Your task to perform on an android device: Go to Amazon Image 0: 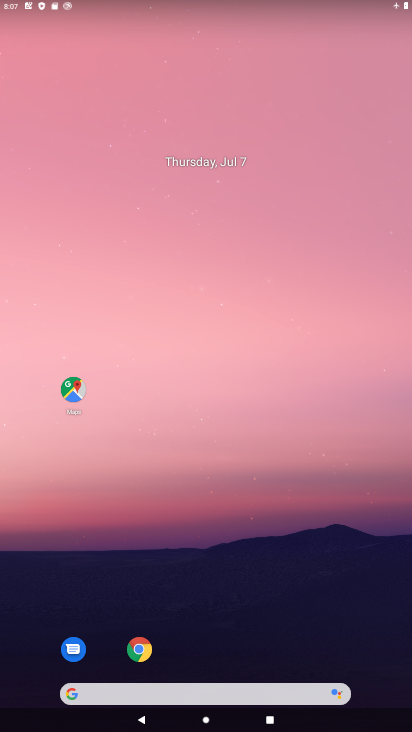
Step 0: drag from (213, 663) to (138, 6)
Your task to perform on an android device: Go to Amazon Image 1: 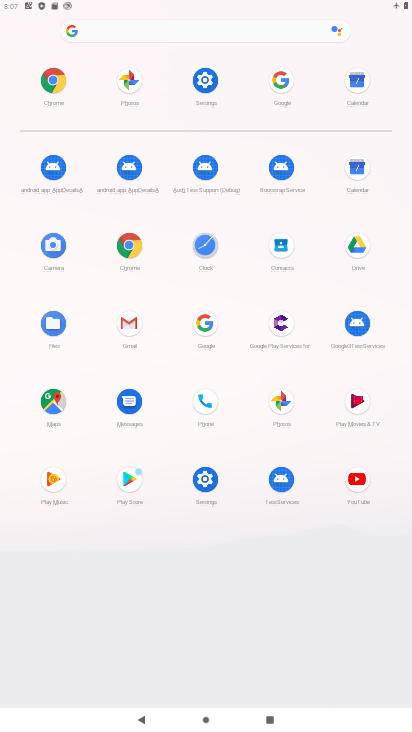
Step 1: click (123, 235)
Your task to perform on an android device: Go to Amazon Image 2: 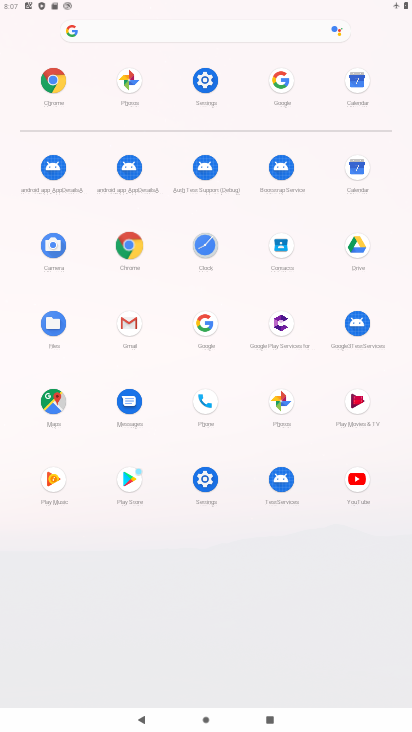
Step 2: click (124, 234)
Your task to perform on an android device: Go to Amazon Image 3: 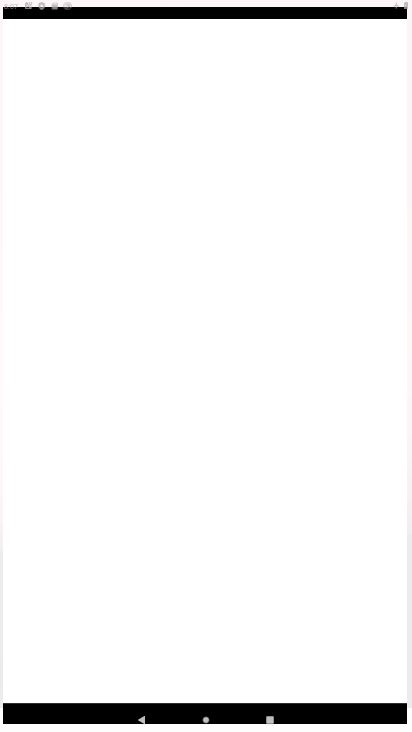
Step 3: click (124, 234)
Your task to perform on an android device: Go to Amazon Image 4: 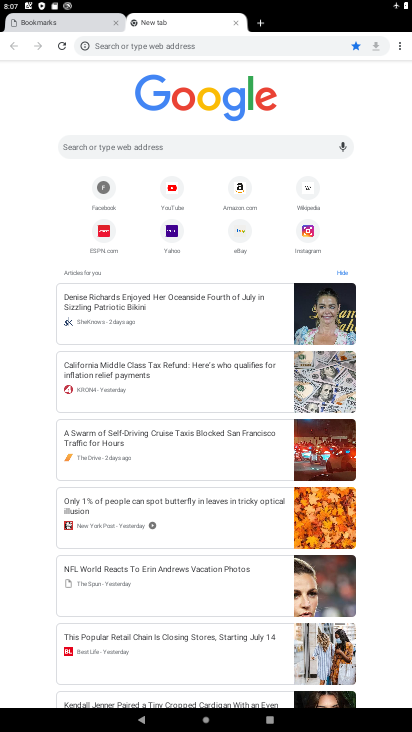
Step 4: click (242, 193)
Your task to perform on an android device: Go to Amazon Image 5: 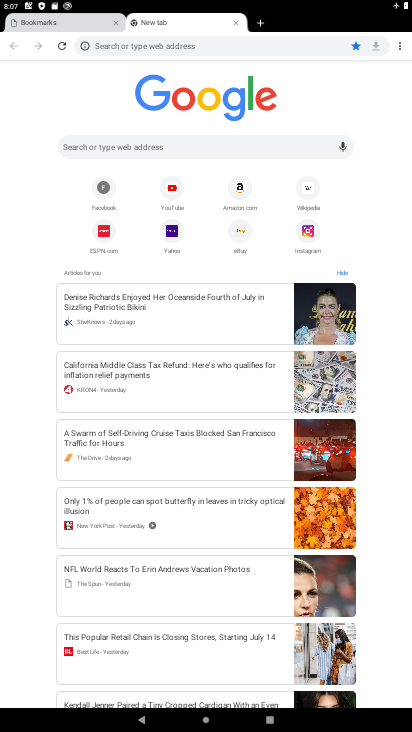
Step 5: click (244, 193)
Your task to perform on an android device: Go to Amazon Image 6: 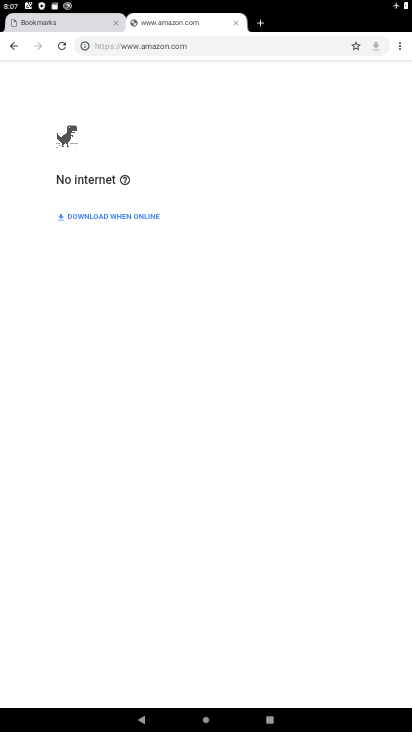
Step 6: task complete